Your task to perform on an android device: toggle translation in the chrome app Image 0: 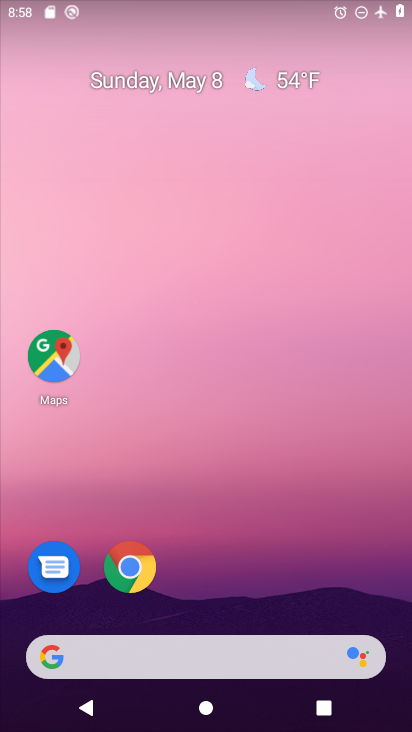
Step 0: drag from (261, 539) to (304, 55)
Your task to perform on an android device: toggle translation in the chrome app Image 1: 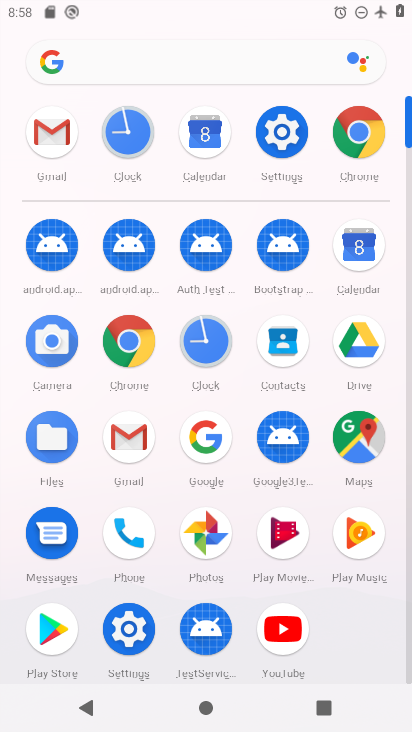
Step 1: click (354, 153)
Your task to perform on an android device: toggle translation in the chrome app Image 2: 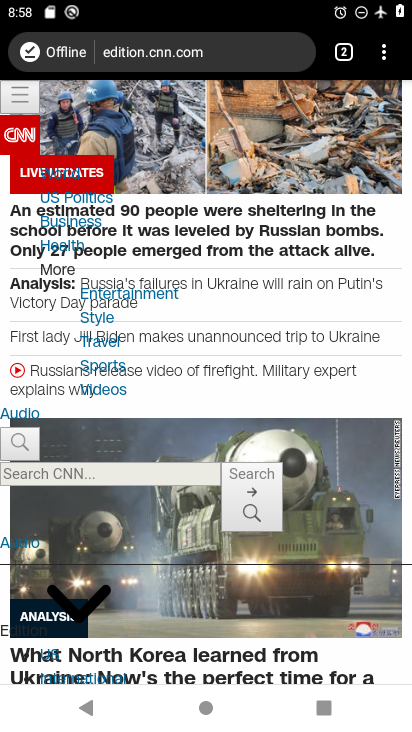
Step 2: drag from (389, 68) to (285, 588)
Your task to perform on an android device: toggle translation in the chrome app Image 3: 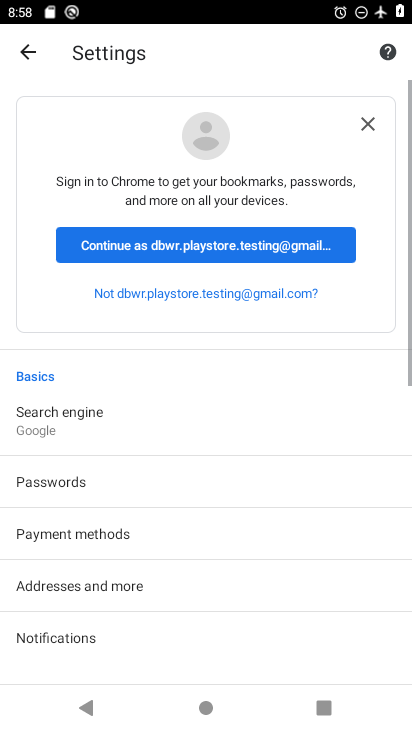
Step 3: drag from (277, 664) to (320, 285)
Your task to perform on an android device: toggle translation in the chrome app Image 4: 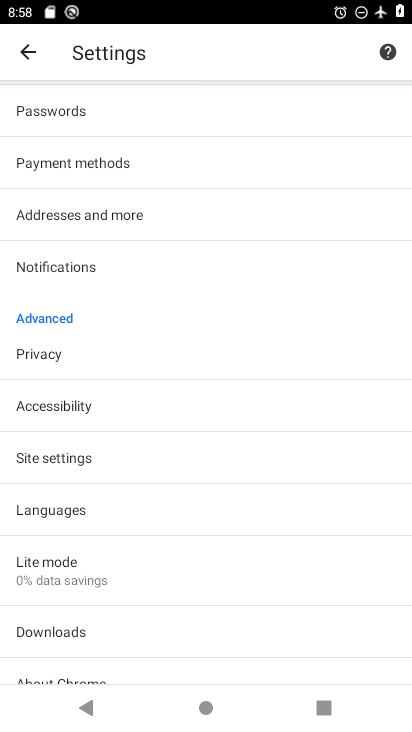
Step 4: click (108, 514)
Your task to perform on an android device: toggle translation in the chrome app Image 5: 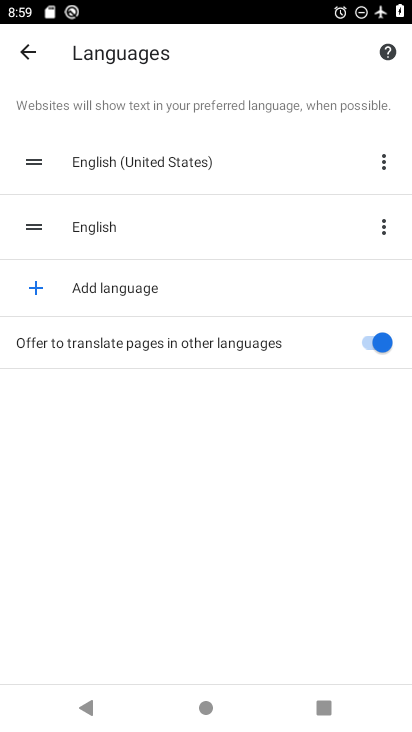
Step 5: click (363, 342)
Your task to perform on an android device: toggle translation in the chrome app Image 6: 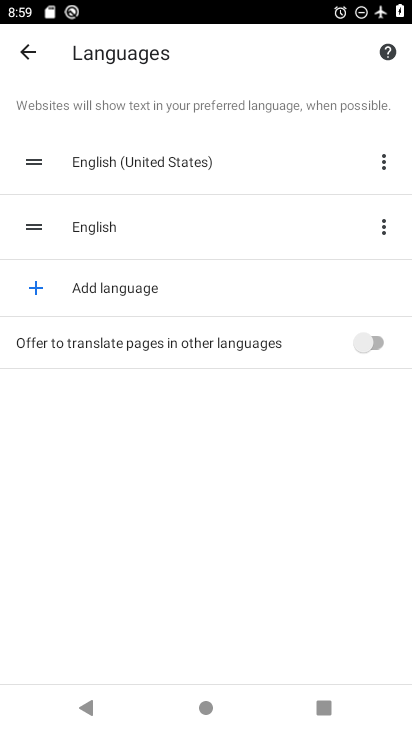
Step 6: task complete